Your task to perform on an android device: Clear the cart on walmart.com. Add "razer blade" to the cart on walmart.com, then select checkout. Image 0: 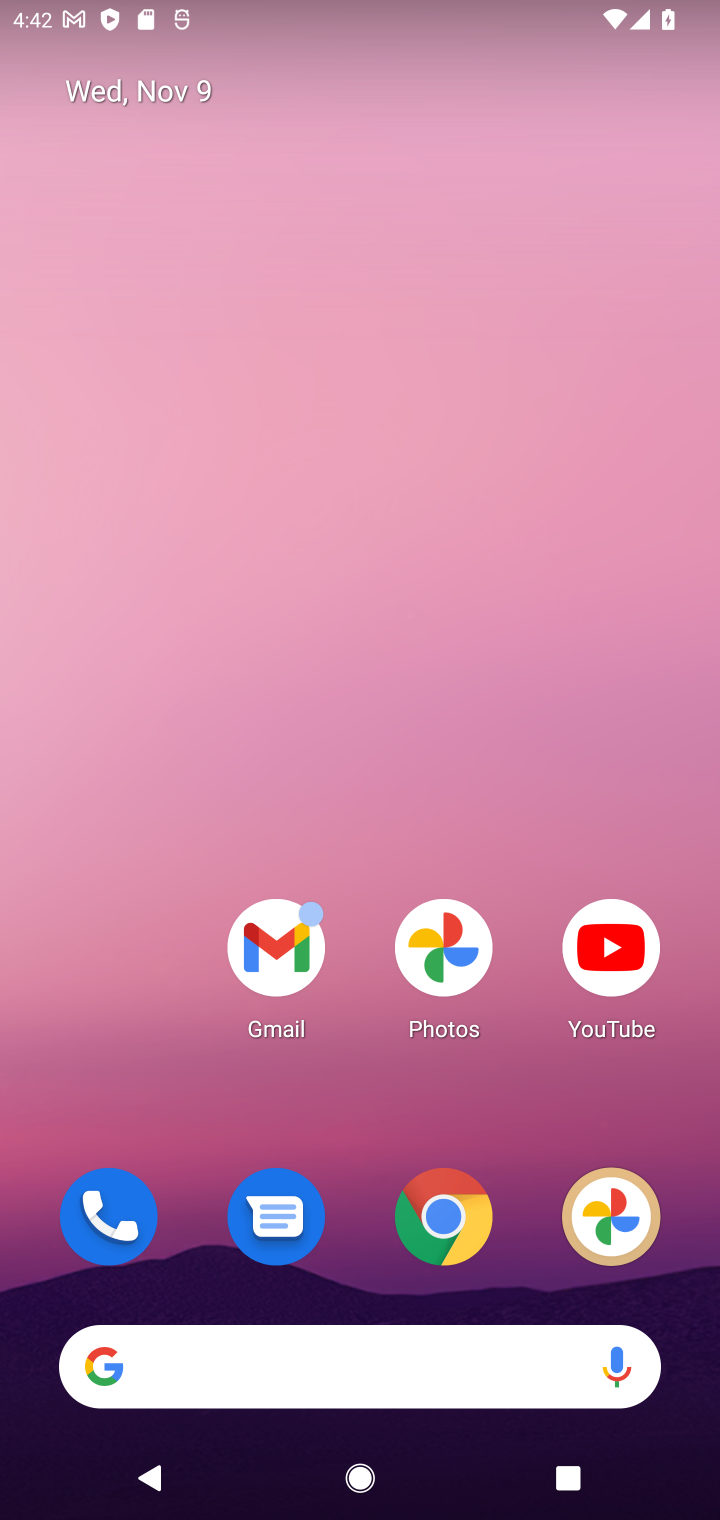
Step 0: drag from (374, 1001) to (361, 246)
Your task to perform on an android device: Clear the cart on walmart.com. Add "razer blade" to the cart on walmart.com, then select checkout. Image 1: 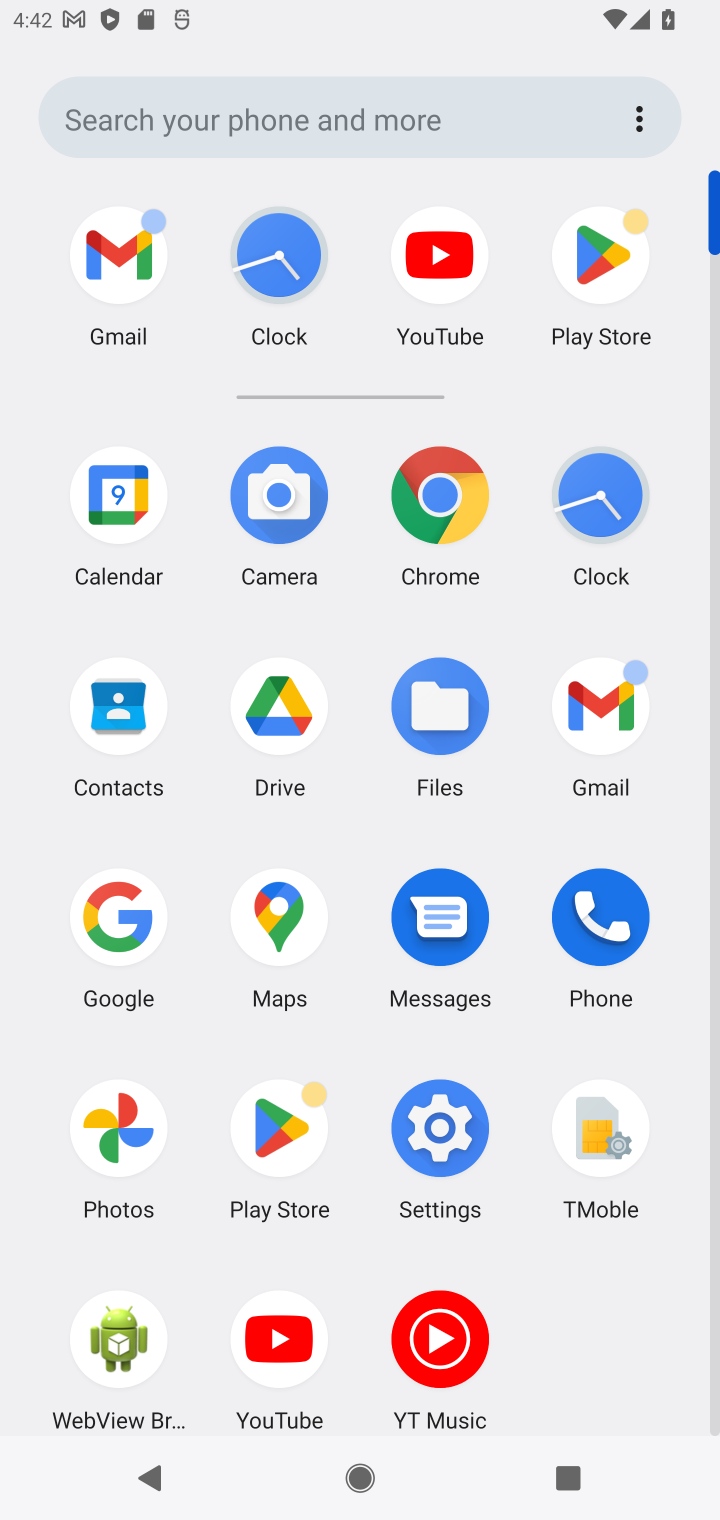
Step 1: click (447, 507)
Your task to perform on an android device: Clear the cart on walmart.com. Add "razer blade" to the cart on walmart.com, then select checkout. Image 2: 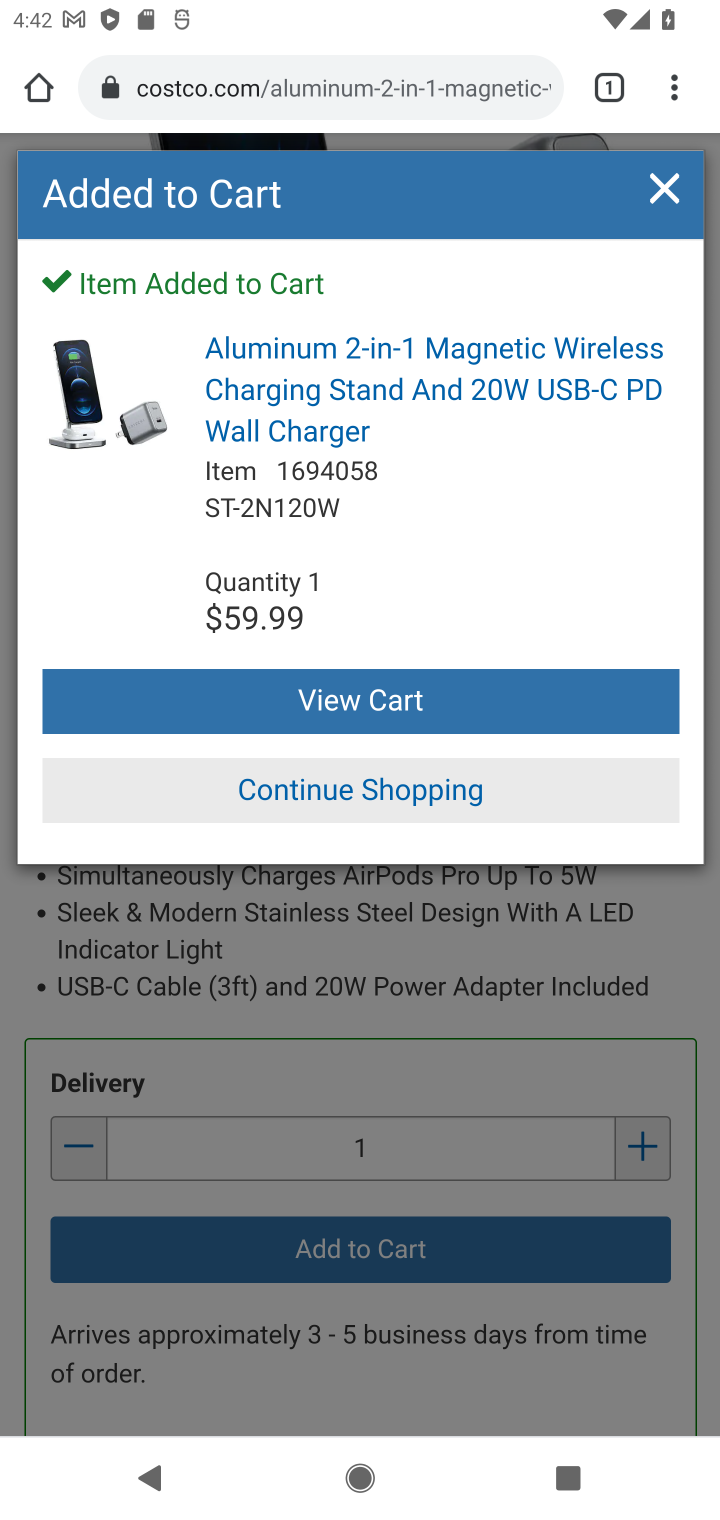
Step 2: click (435, 73)
Your task to perform on an android device: Clear the cart on walmart.com. Add "razer blade" to the cart on walmart.com, then select checkout. Image 3: 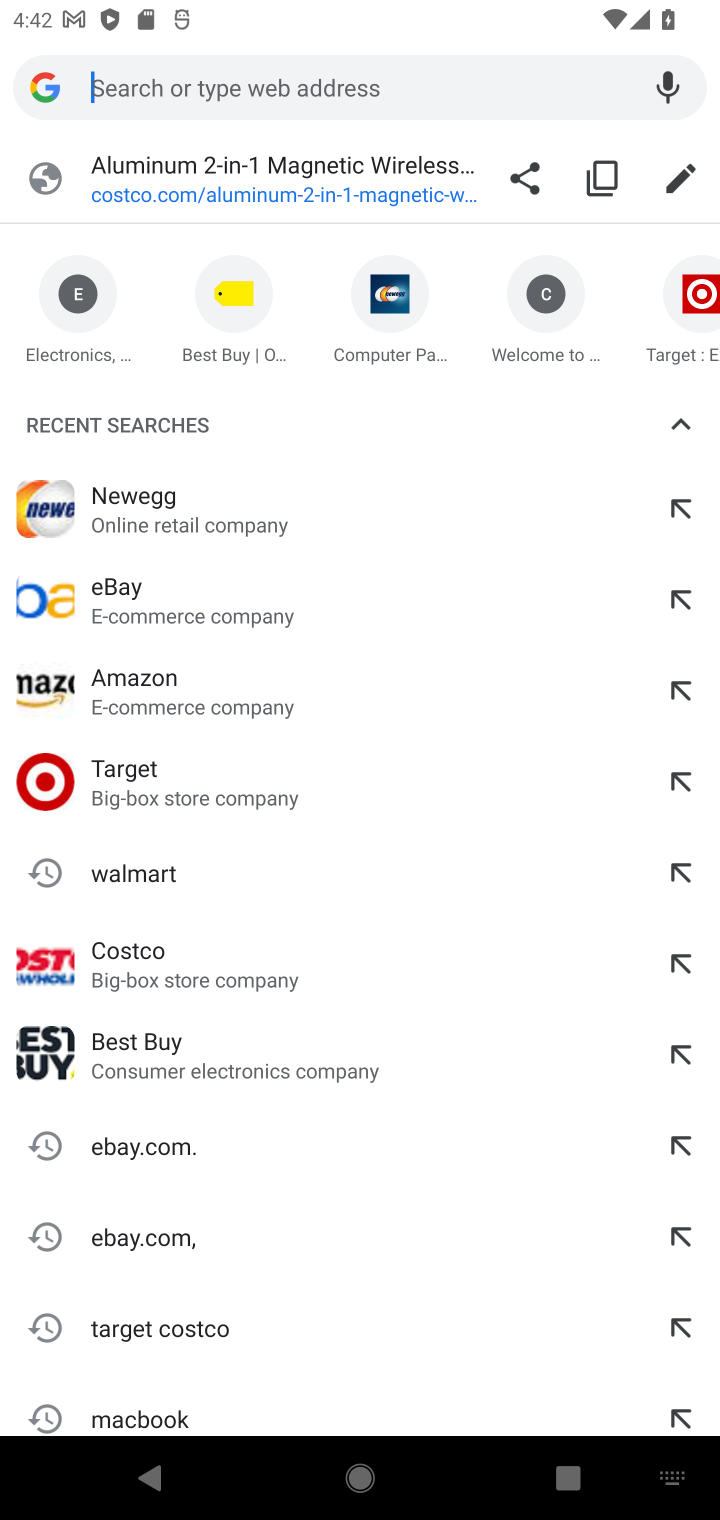
Step 3: type "walmart.com"
Your task to perform on an android device: Clear the cart on walmart.com. Add "razer blade" to the cart on walmart.com, then select checkout. Image 4: 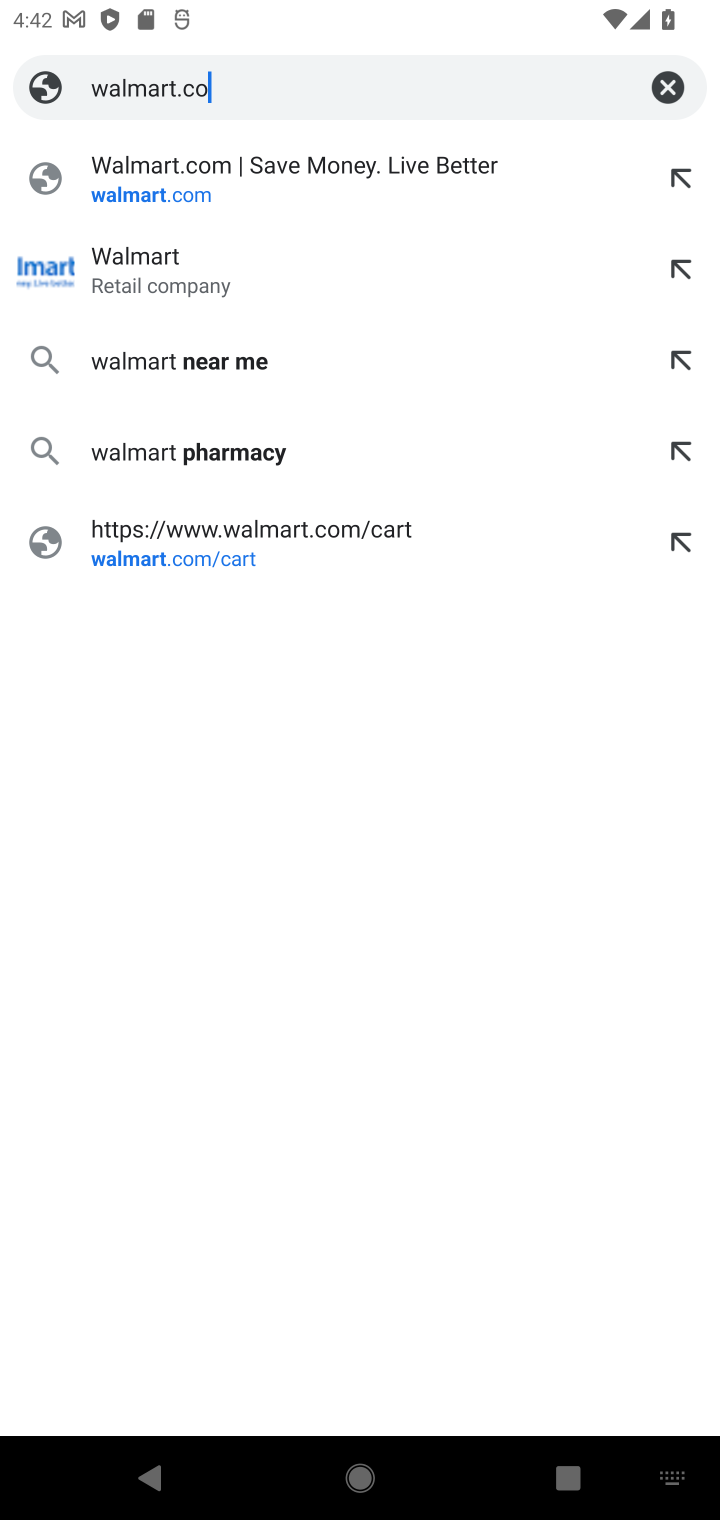
Step 4: press enter
Your task to perform on an android device: Clear the cart on walmart.com. Add "razer blade" to the cart on walmart.com, then select checkout. Image 5: 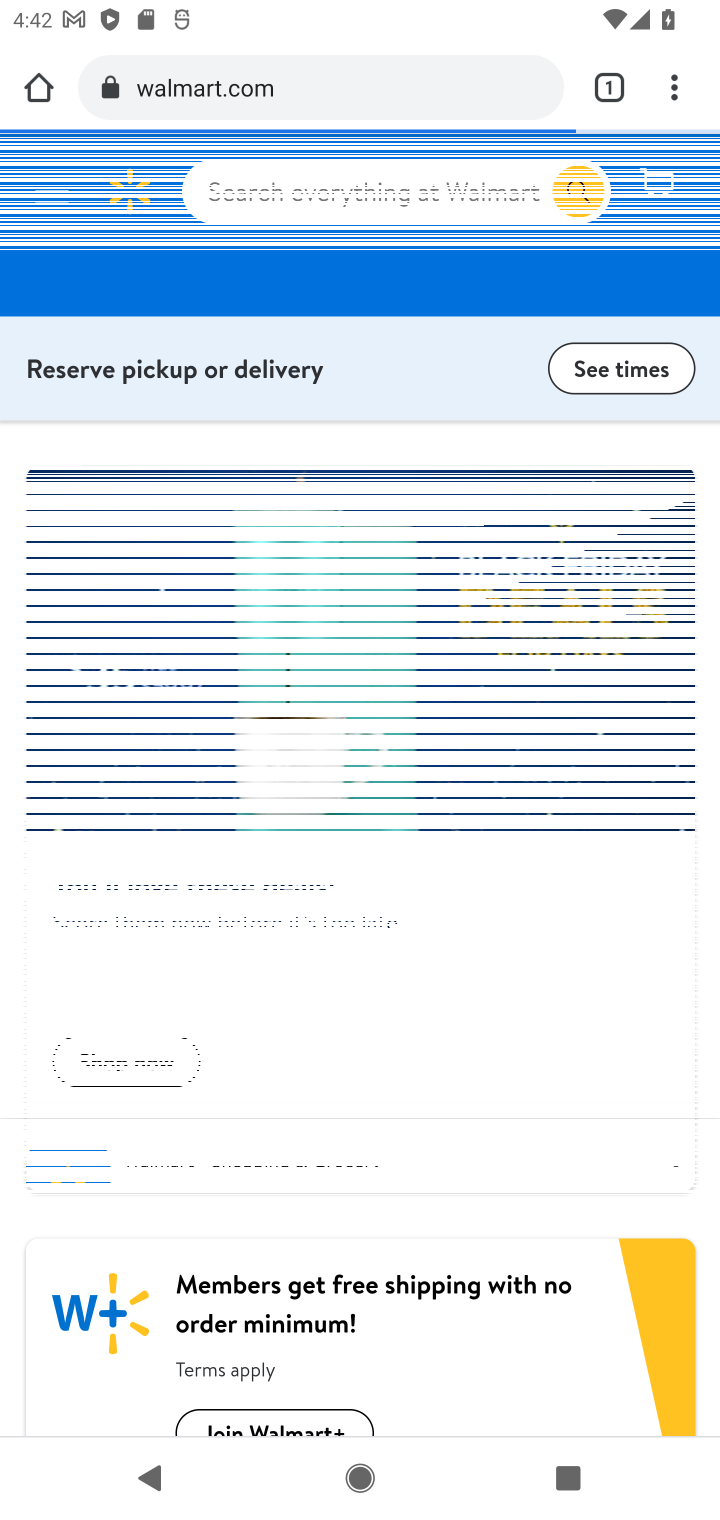
Step 5: click (682, 188)
Your task to perform on an android device: Clear the cart on walmart.com. Add "razer blade" to the cart on walmart.com, then select checkout. Image 6: 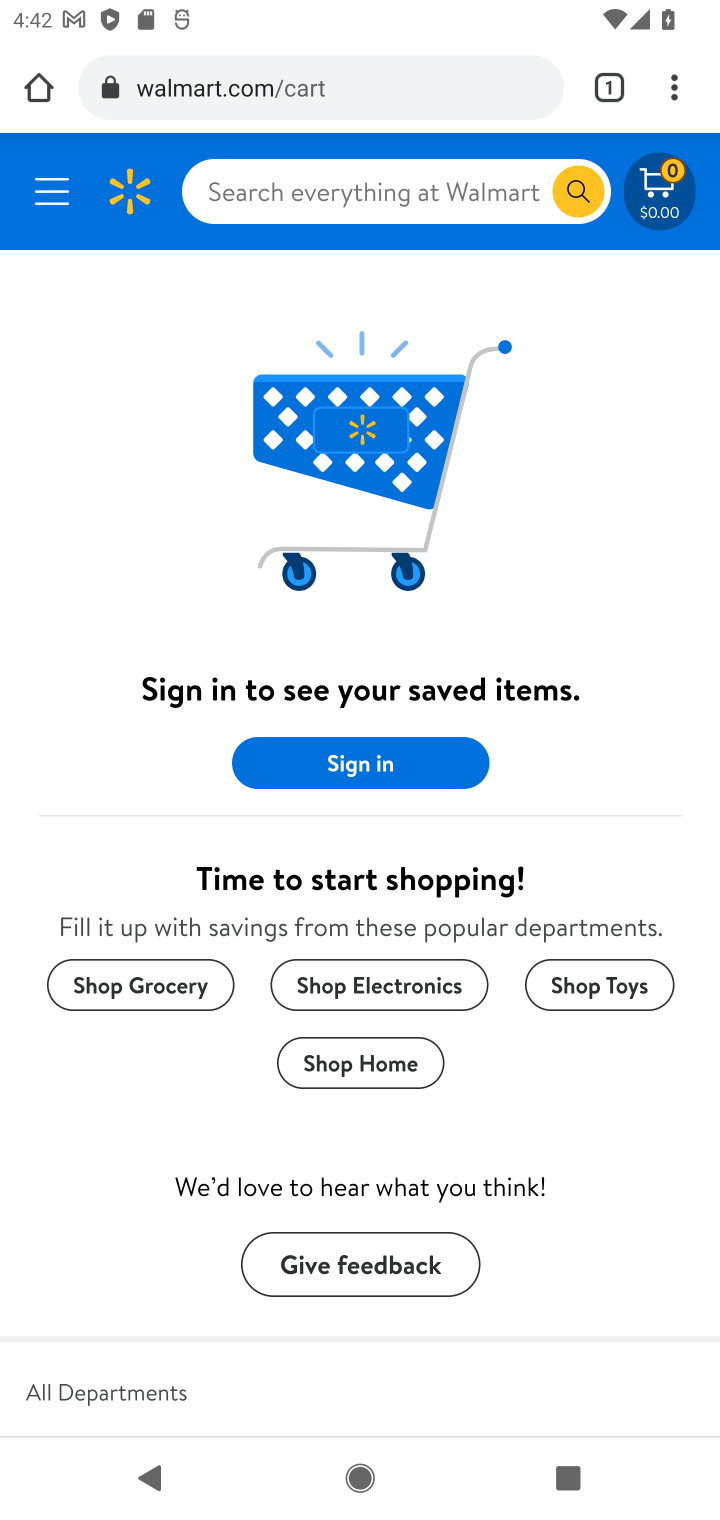
Step 6: click (446, 188)
Your task to perform on an android device: Clear the cart on walmart.com. Add "razer blade" to the cart on walmart.com, then select checkout. Image 7: 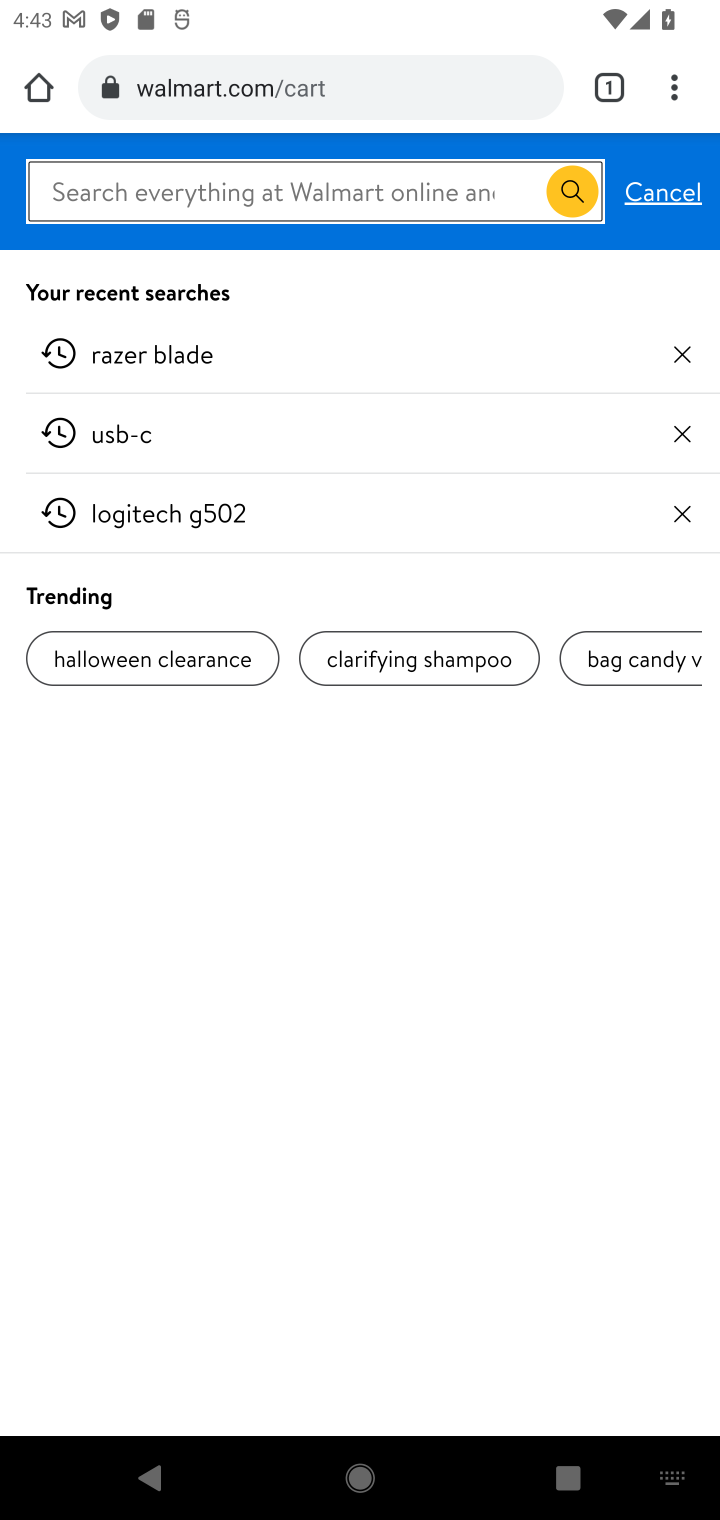
Step 7: type "razer blade"
Your task to perform on an android device: Clear the cart on walmart.com. Add "razer blade" to the cart on walmart.com, then select checkout. Image 8: 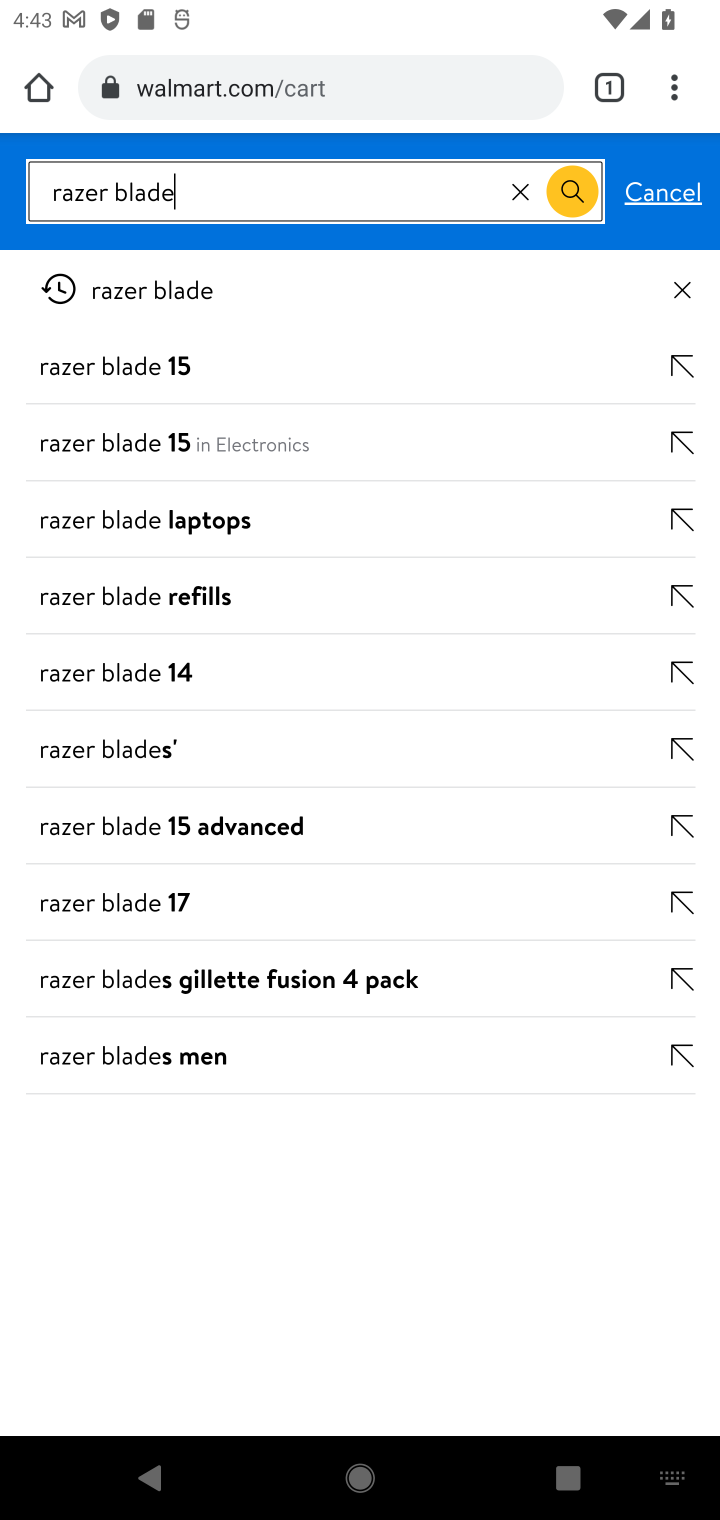
Step 8: press enter
Your task to perform on an android device: Clear the cart on walmart.com. Add "razer blade" to the cart on walmart.com, then select checkout. Image 9: 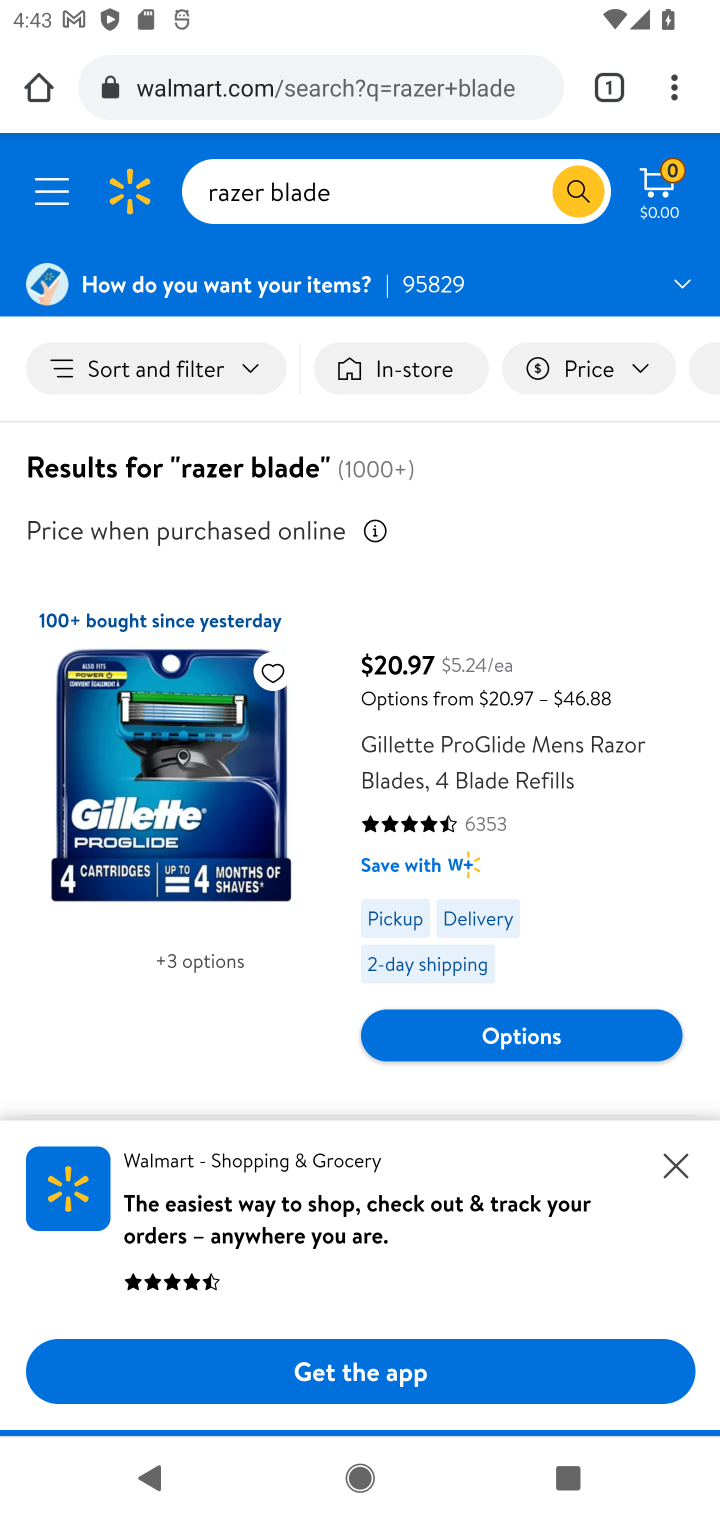
Step 9: task complete